Your task to perform on an android device: choose inbox layout in the gmail app Image 0: 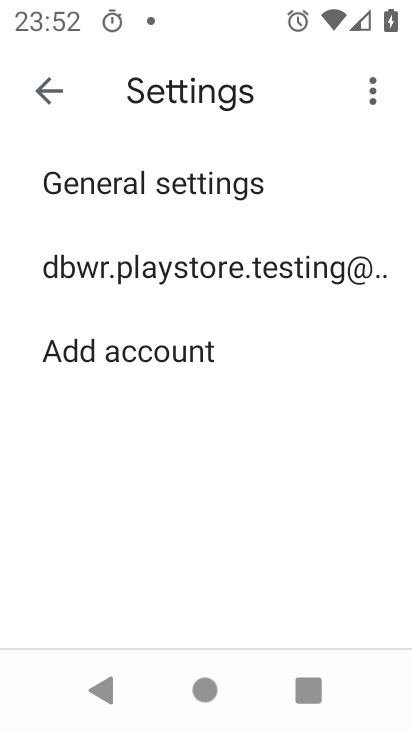
Step 0: press home button
Your task to perform on an android device: choose inbox layout in the gmail app Image 1: 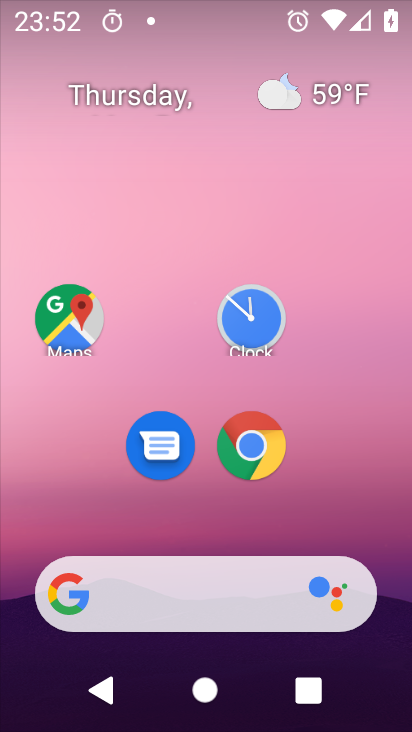
Step 1: drag from (255, 604) to (321, 36)
Your task to perform on an android device: choose inbox layout in the gmail app Image 2: 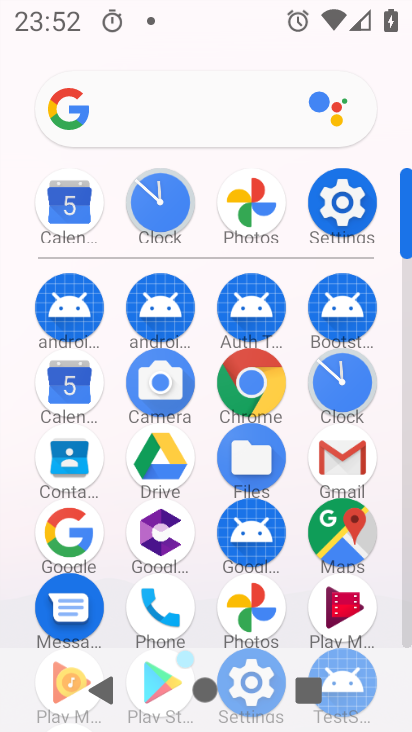
Step 2: click (341, 458)
Your task to perform on an android device: choose inbox layout in the gmail app Image 3: 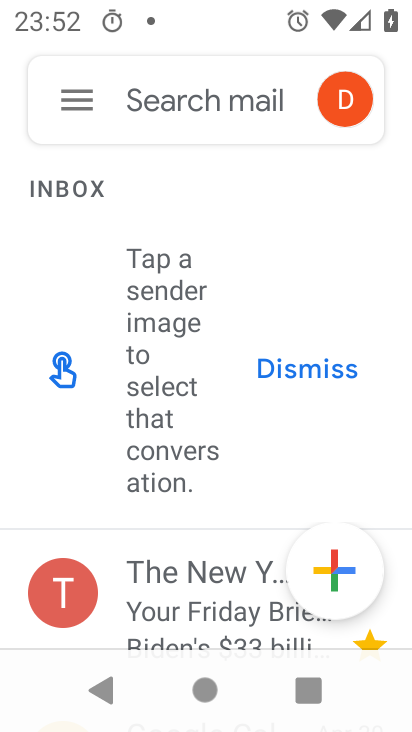
Step 3: click (70, 111)
Your task to perform on an android device: choose inbox layout in the gmail app Image 4: 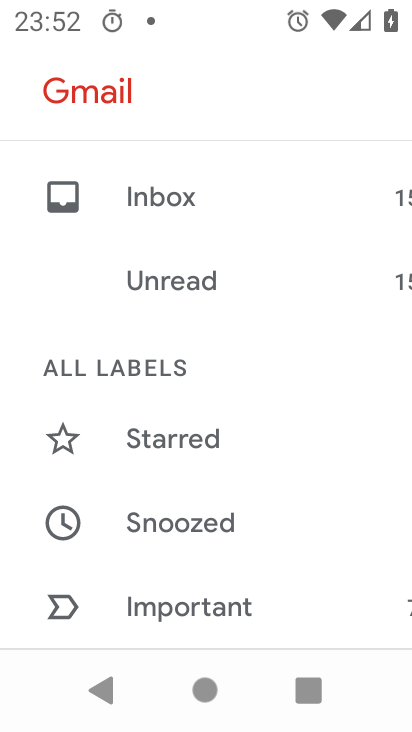
Step 4: drag from (199, 563) to (229, 119)
Your task to perform on an android device: choose inbox layout in the gmail app Image 5: 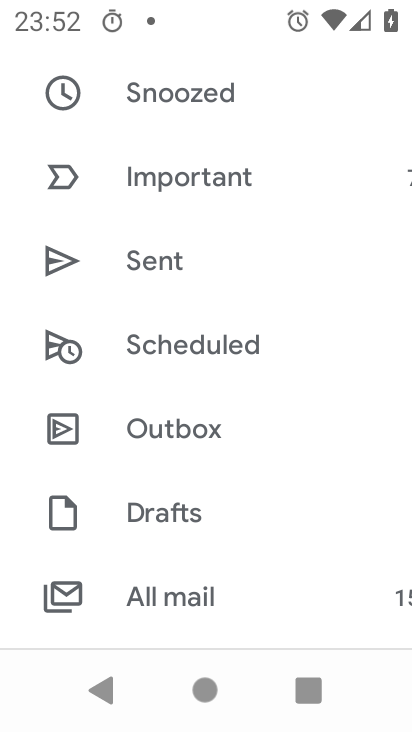
Step 5: drag from (209, 599) to (184, 23)
Your task to perform on an android device: choose inbox layout in the gmail app Image 6: 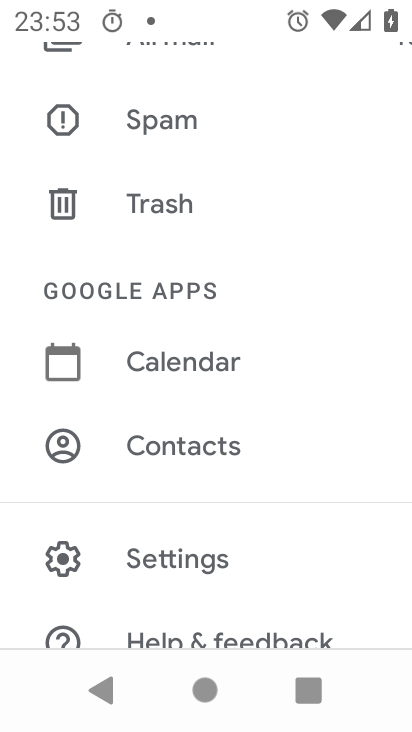
Step 6: click (189, 567)
Your task to perform on an android device: choose inbox layout in the gmail app Image 7: 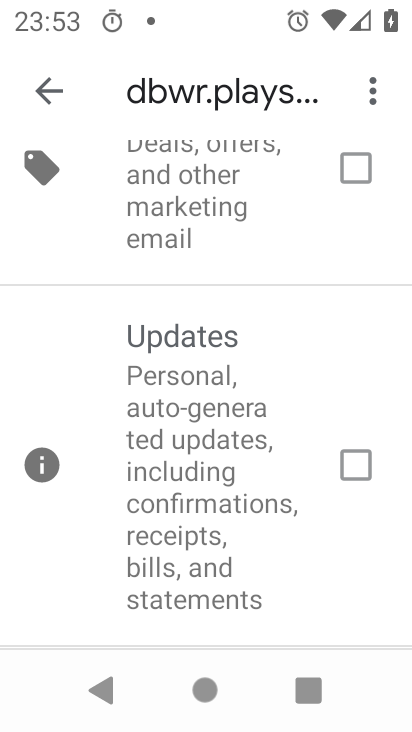
Step 7: click (63, 90)
Your task to perform on an android device: choose inbox layout in the gmail app Image 8: 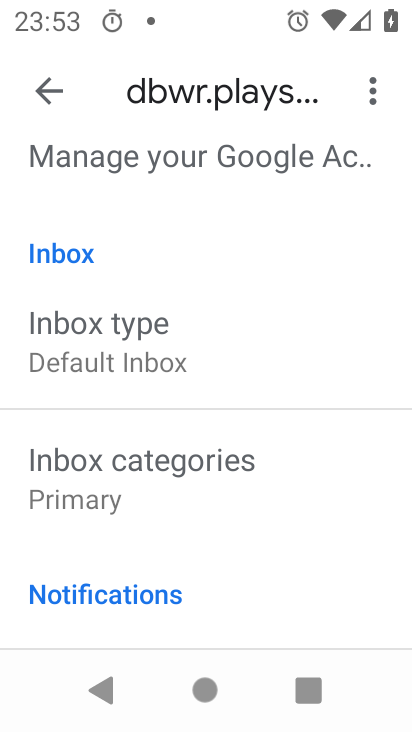
Step 8: click (135, 368)
Your task to perform on an android device: choose inbox layout in the gmail app Image 9: 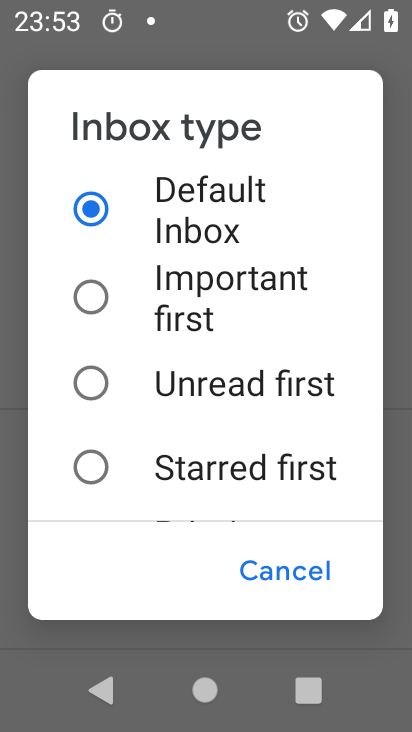
Step 9: click (164, 309)
Your task to perform on an android device: choose inbox layout in the gmail app Image 10: 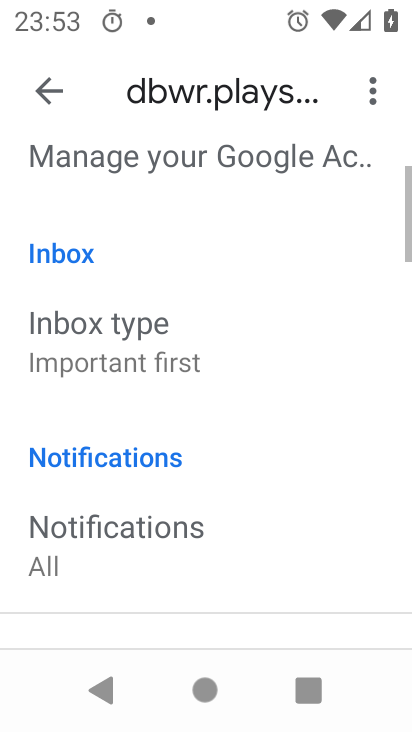
Step 10: task complete